Your task to perform on an android device: Open Google Chrome and click the shortcut for Amazon.com Image 0: 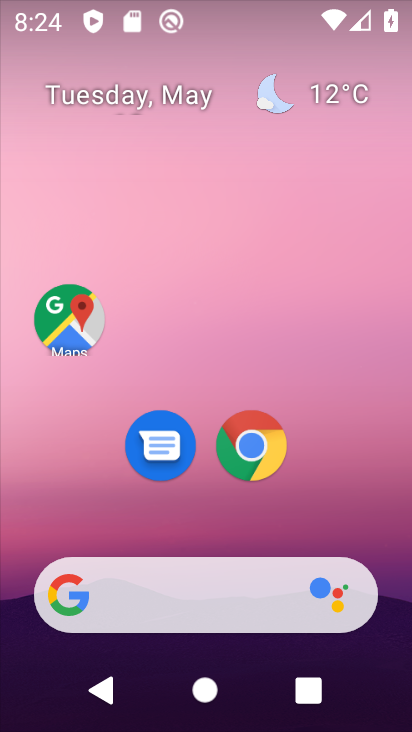
Step 0: click (257, 461)
Your task to perform on an android device: Open Google Chrome and click the shortcut for Amazon.com Image 1: 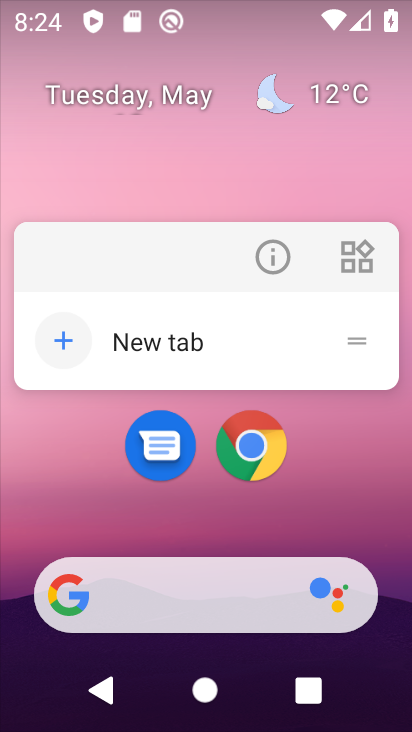
Step 1: click (257, 461)
Your task to perform on an android device: Open Google Chrome and click the shortcut for Amazon.com Image 2: 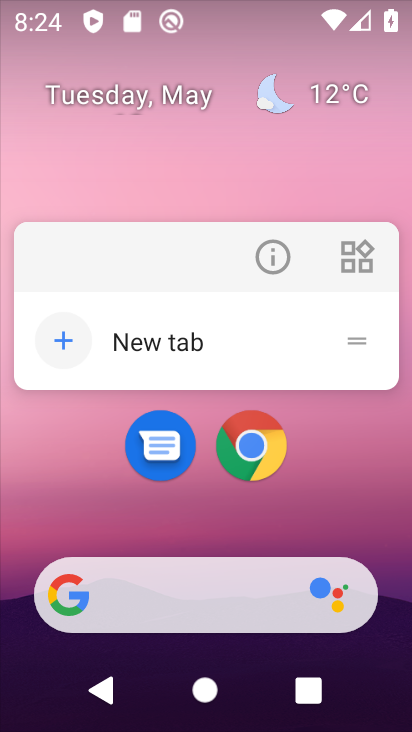
Step 2: click (257, 466)
Your task to perform on an android device: Open Google Chrome and click the shortcut for Amazon.com Image 3: 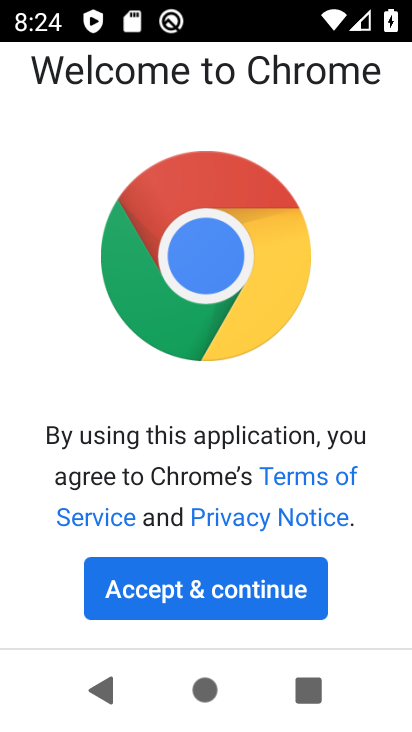
Step 3: click (237, 587)
Your task to perform on an android device: Open Google Chrome and click the shortcut for Amazon.com Image 4: 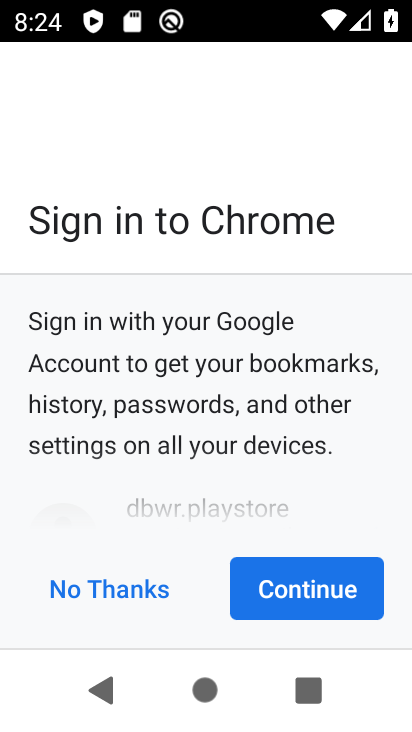
Step 4: click (310, 592)
Your task to perform on an android device: Open Google Chrome and click the shortcut for Amazon.com Image 5: 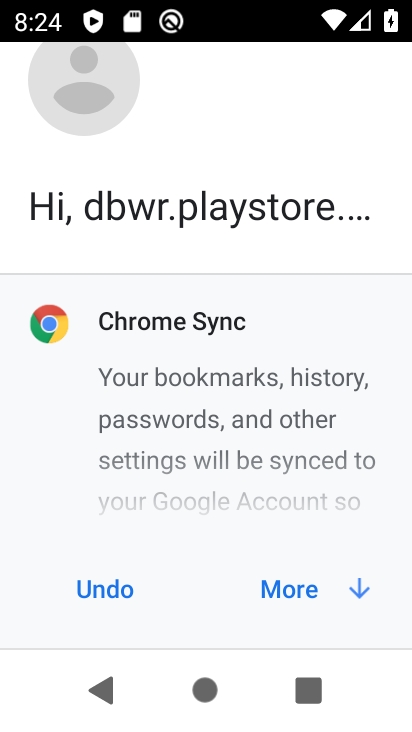
Step 5: click (310, 593)
Your task to perform on an android device: Open Google Chrome and click the shortcut for Amazon.com Image 6: 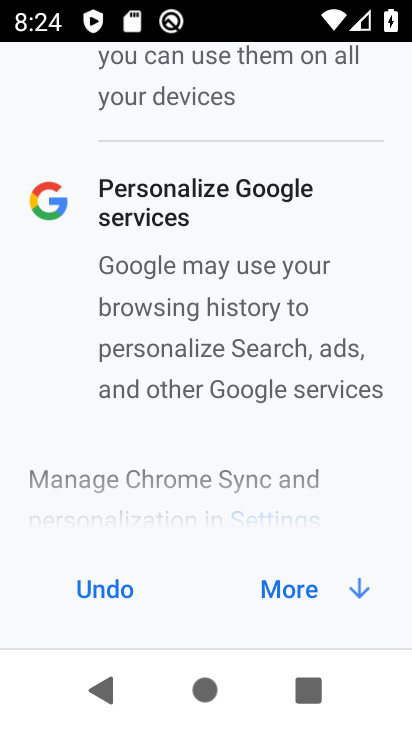
Step 6: click (310, 593)
Your task to perform on an android device: Open Google Chrome and click the shortcut for Amazon.com Image 7: 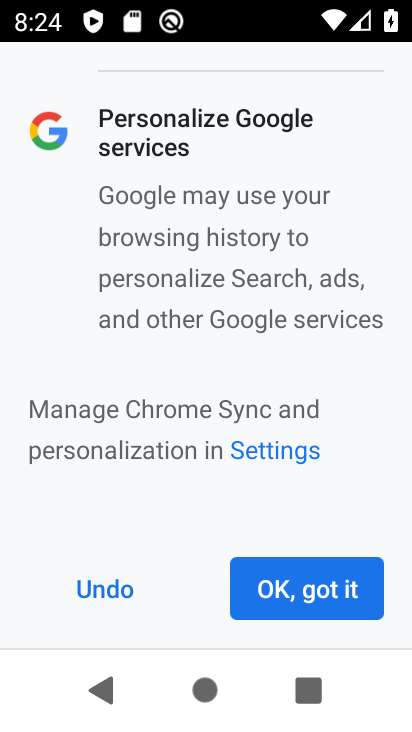
Step 7: click (310, 593)
Your task to perform on an android device: Open Google Chrome and click the shortcut for Amazon.com Image 8: 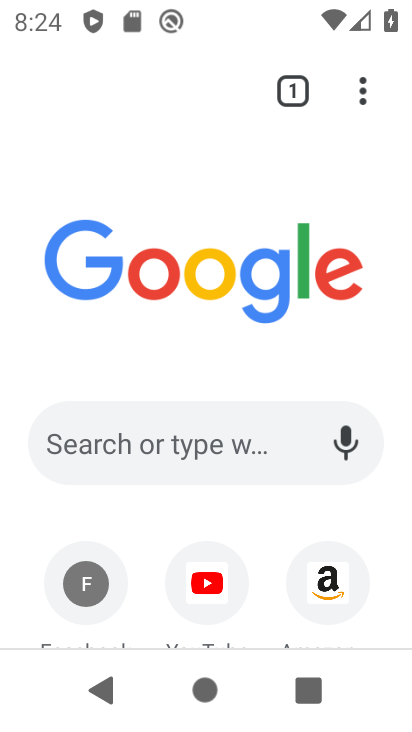
Step 8: drag from (375, 623) to (406, 465)
Your task to perform on an android device: Open Google Chrome and click the shortcut for Amazon.com Image 9: 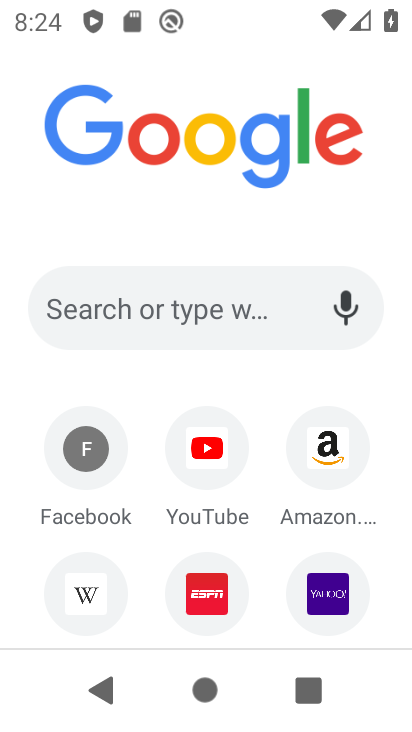
Step 9: click (332, 459)
Your task to perform on an android device: Open Google Chrome and click the shortcut for Amazon.com Image 10: 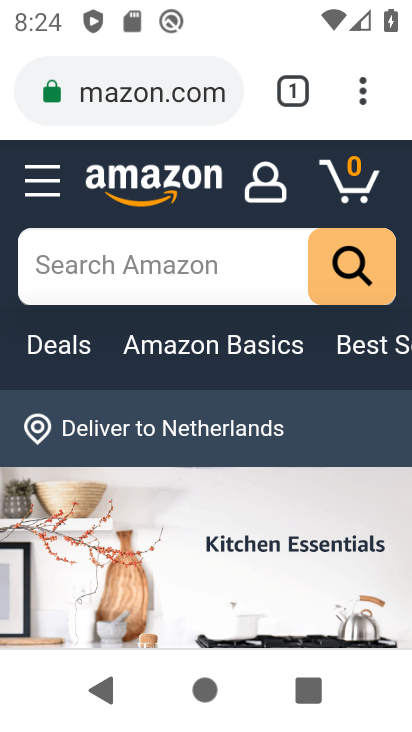
Step 10: task complete